Your task to perform on an android device: Turn off the flashlight Image 0: 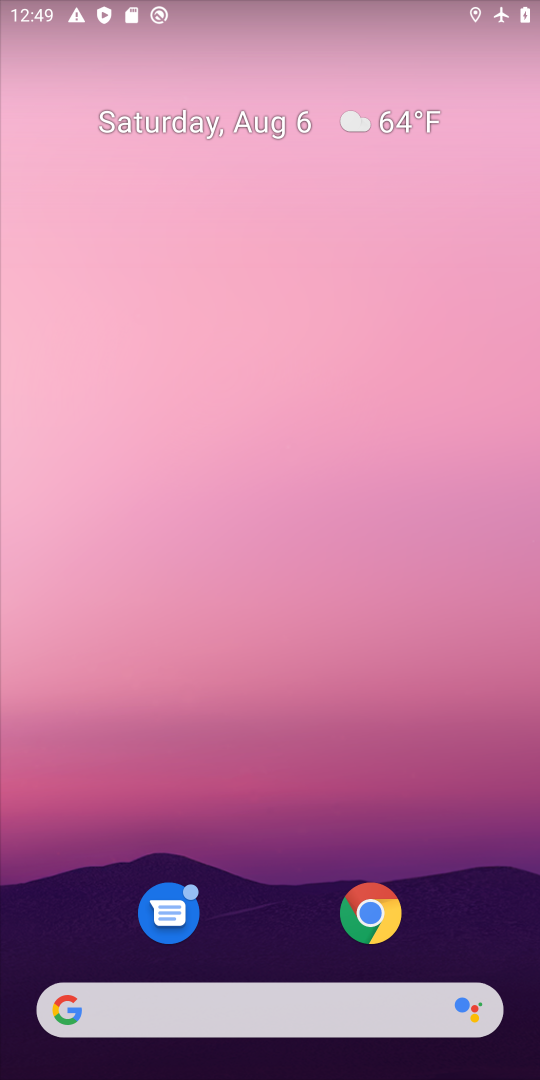
Step 0: press home button
Your task to perform on an android device: Turn off the flashlight Image 1: 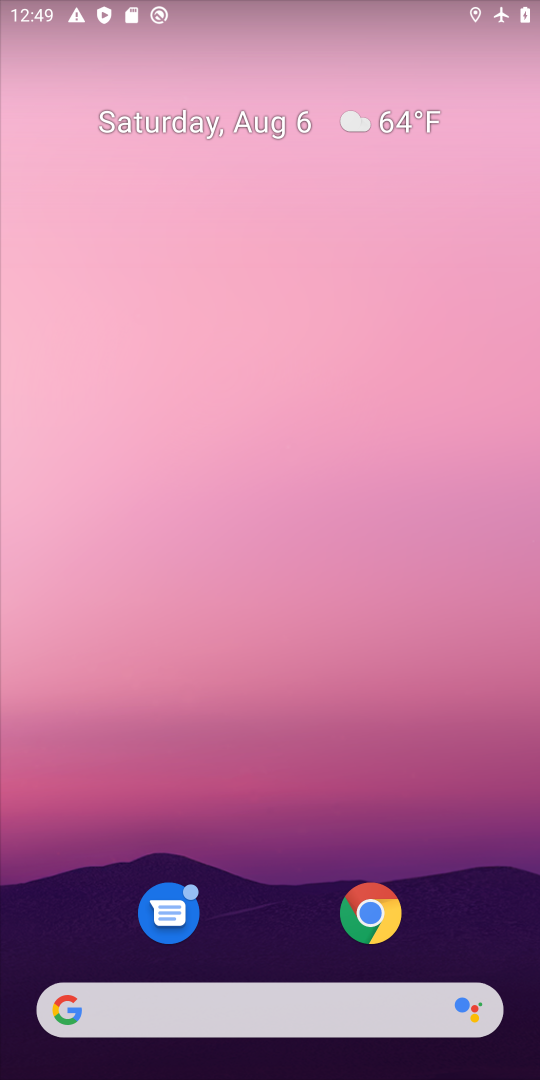
Step 1: drag from (461, 870) to (461, 762)
Your task to perform on an android device: Turn off the flashlight Image 2: 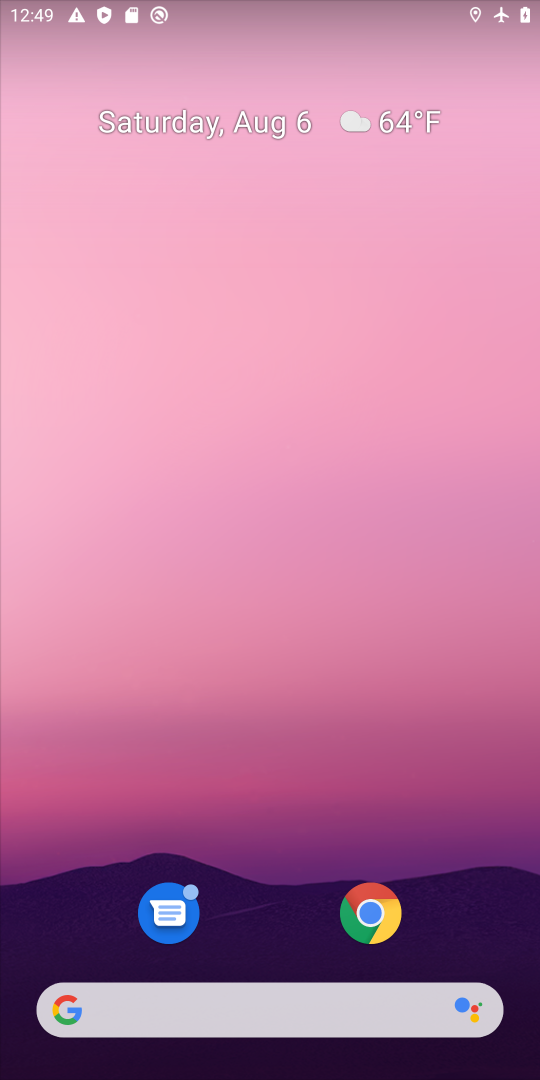
Step 2: drag from (295, 13) to (312, 636)
Your task to perform on an android device: Turn off the flashlight Image 3: 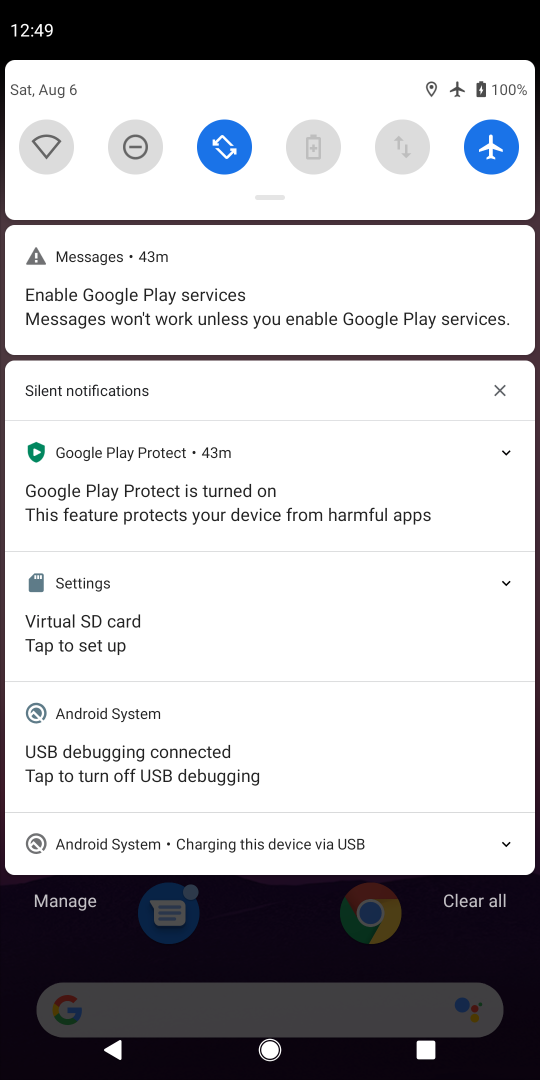
Step 3: drag from (264, 64) to (316, 556)
Your task to perform on an android device: Turn off the flashlight Image 4: 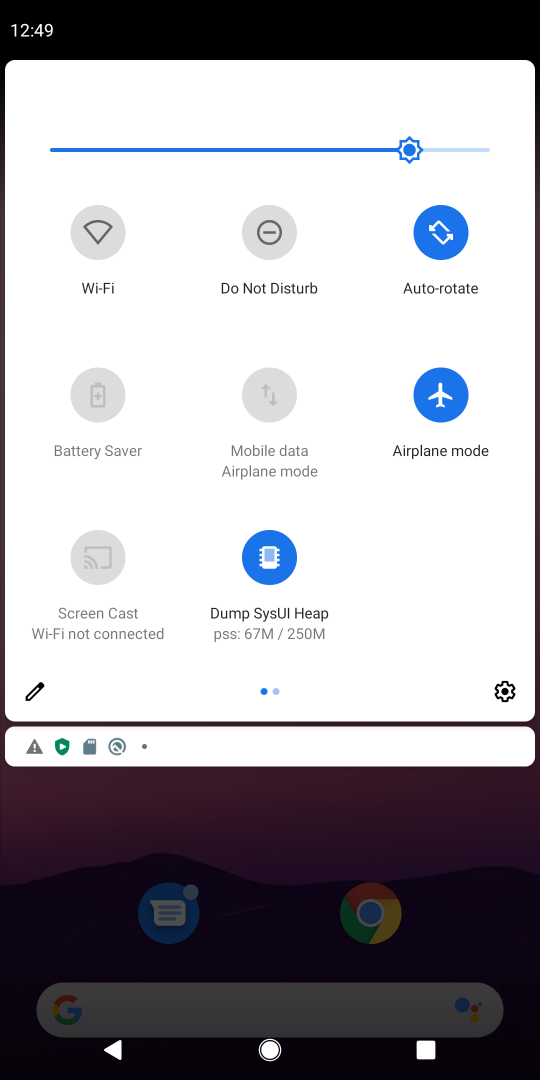
Step 4: click (28, 685)
Your task to perform on an android device: Turn off the flashlight Image 5: 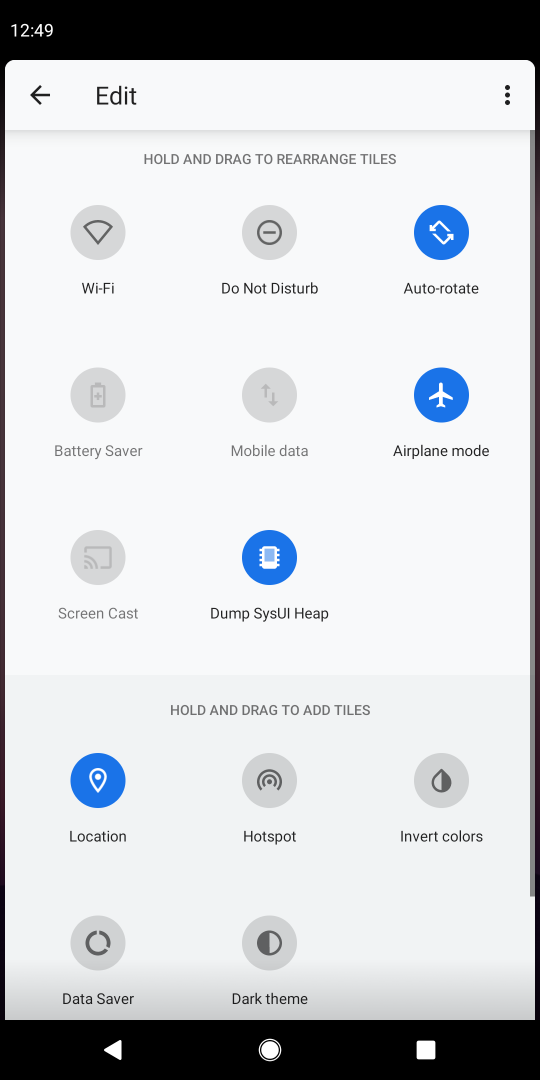
Step 5: task complete